Your task to perform on an android device: Do I have any events this weekend? Image 0: 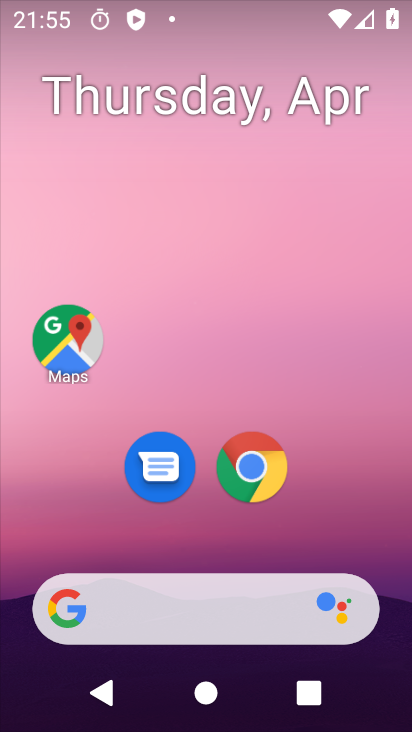
Step 0: drag from (238, 549) to (388, 691)
Your task to perform on an android device: Do I have any events this weekend? Image 1: 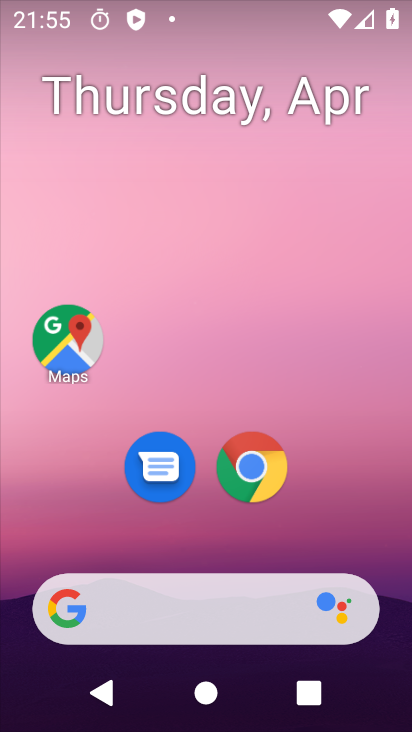
Step 1: drag from (203, 562) to (211, 0)
Your task to perform on an android device: Do I have any events this weekend? Image 2: 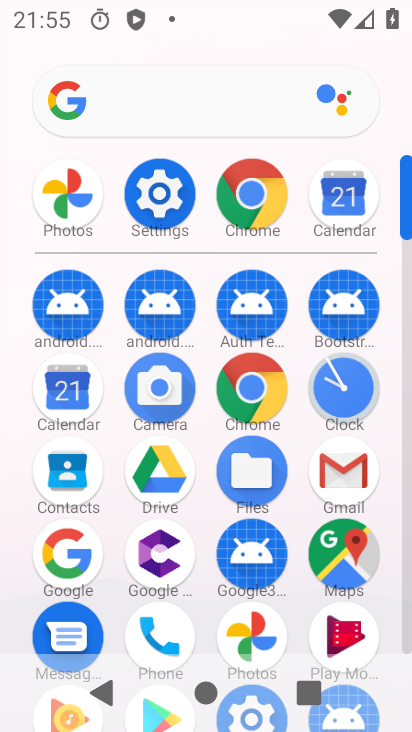
Step 2: click (77, 401)
Your task to perform on an android device: Do I have any events this weekend? Image 3: 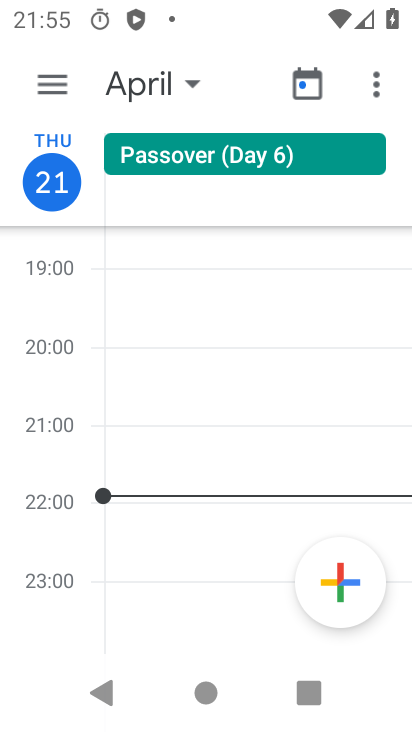
Step 3: click (53, 89)
Your task to perform on an android device: Do I have any events this weekend? Image 4: 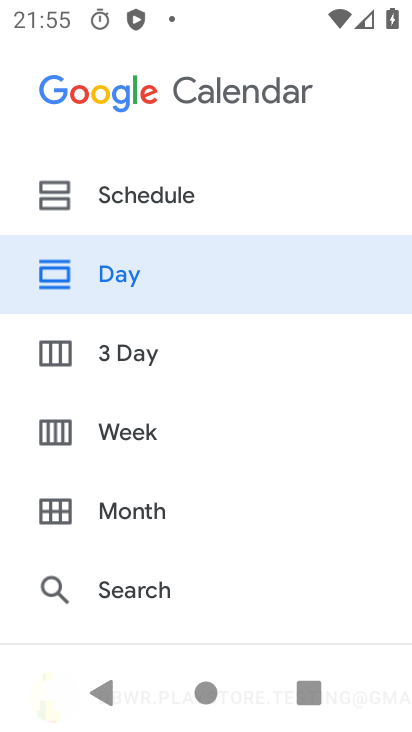
Step 4: click (119, 419)
Your task to perform on an android device: Do I have any events this weekend? Image 5: 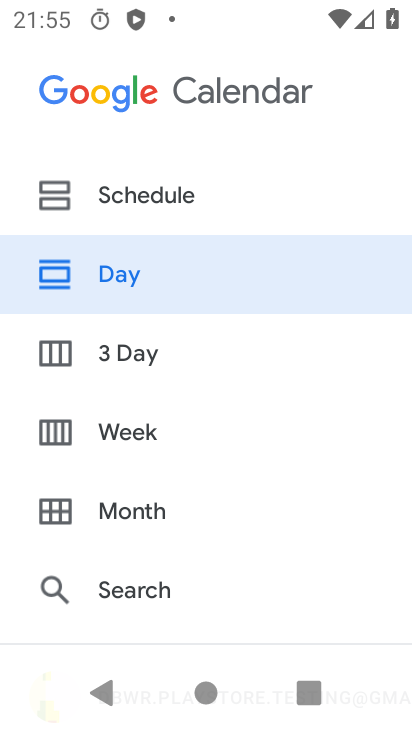
Step 5: click (131, 438)
Your task to perform on an android device: Do I have any events this weekend? Image 6: 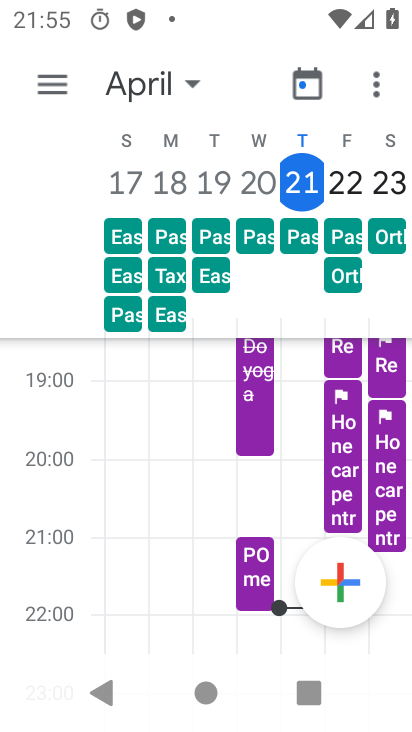
Step 6: task complete